Your task to perform on an android device: Open Youtube and go to the subscriptions tab Image 0: 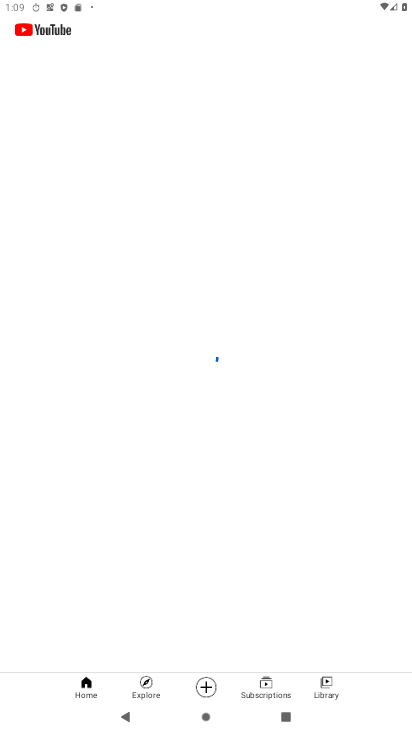
Step 0: press home button
Your task to perform on an android device: Open Youtube and go to the subscriptions tab Image 1: 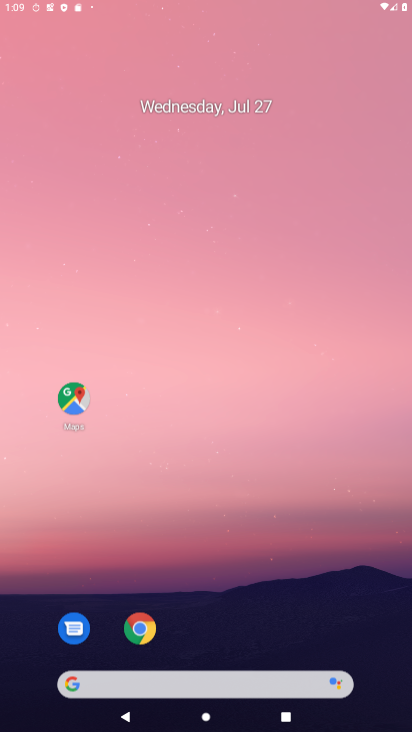
Step 1: drag from (378, 638) to (252, 59)
Your task to perform on an android device: Open Youtube and go to the subscriptions tab Image 2: 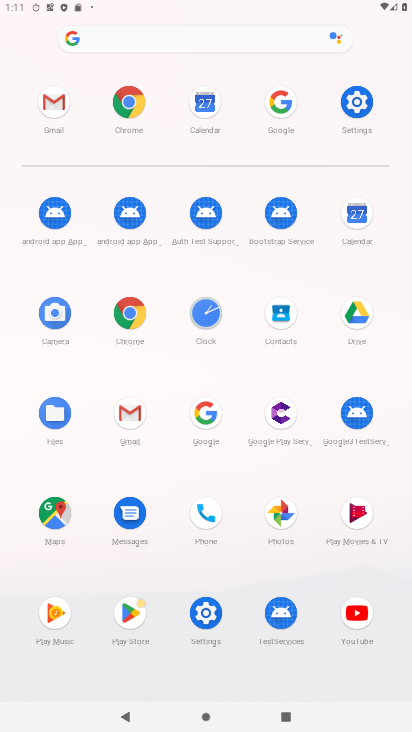
Step 2: click (359, 599)
Your task to perform on an android device: Open Youtube and go to the subscriptions tab Image 3: 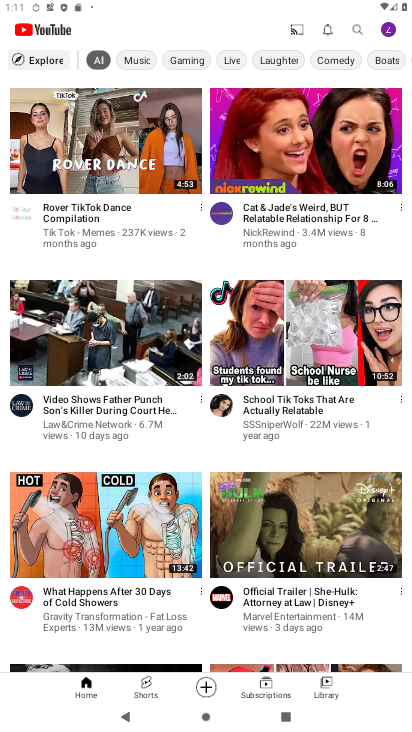
Step 3: click (265, 690)
Your task to perform on an android device: Open Youtube and go to the subscriptions tab Image 4: 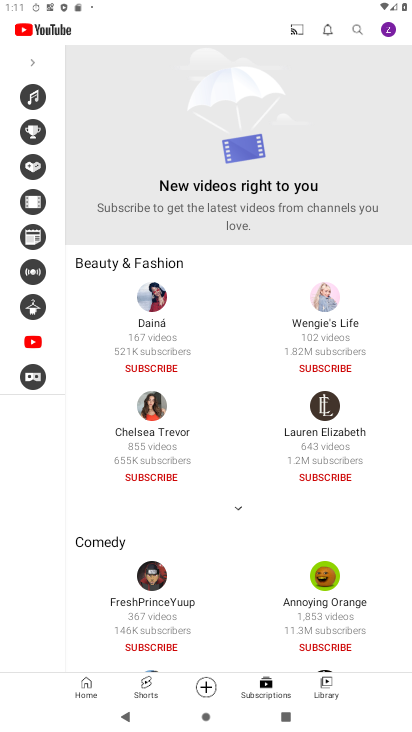
Step 4: task complete